Your task to perform on an android device: open app "Nova Launcher" (install if not already installed) Image 0: 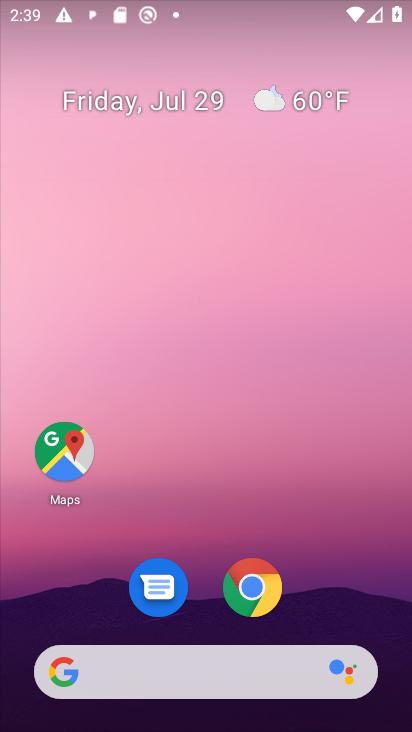
Step 0: drag from (167, 680) to (154, 27)
Your task to perform on an android device: open app "Nova Launcher" (install if not already installed) Image 1: 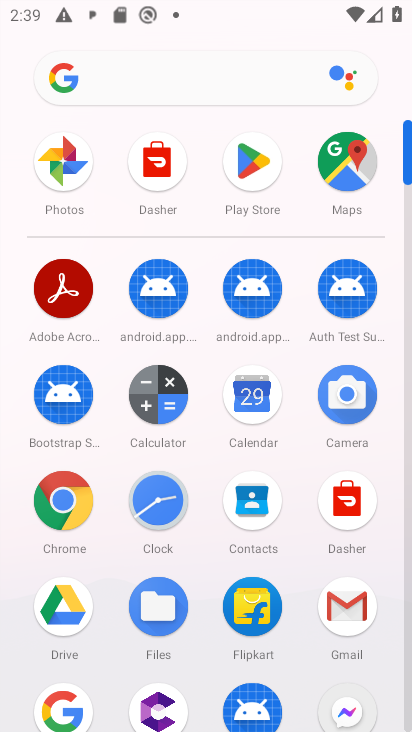
Step 1: click (255, 184)
Your task to perform on an android device: open app "Nova Launcher" (install if not already installed) Image 2: 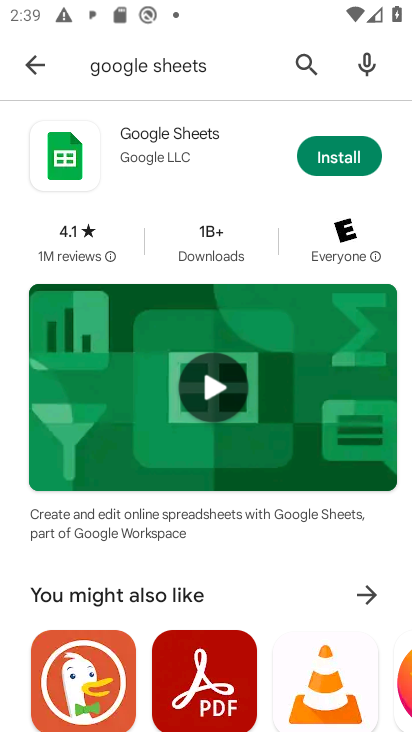
Step 2: click (309, 57)
Your task to perform on an android device: open app "Nova Launcher" (install if not already installed) Image 3: 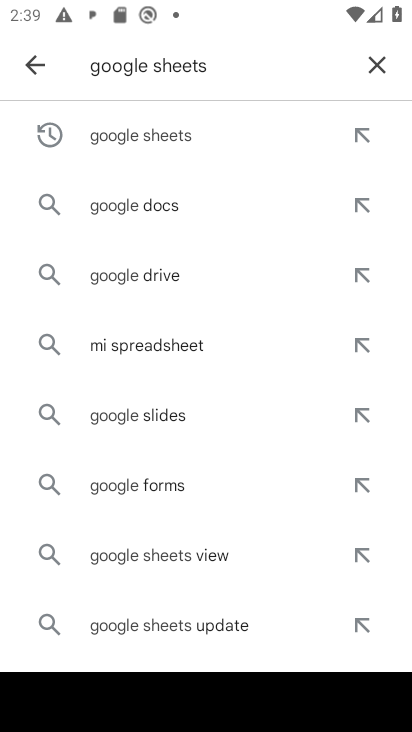
Step 3: click (375, 63)
Your task to perform on an android device: open app "Nova Launcher" (install if not already installed) Image 4: 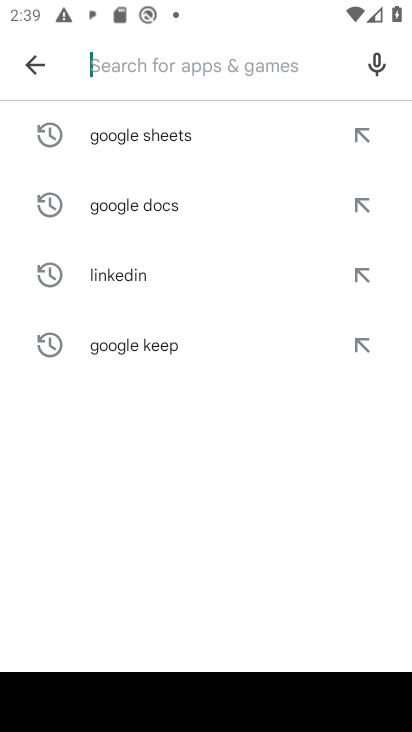
Step 4: type "Nova Launcher"
Your task to perform on an android device: open app "Nova Launcher" (install if not already installed) Image 5: 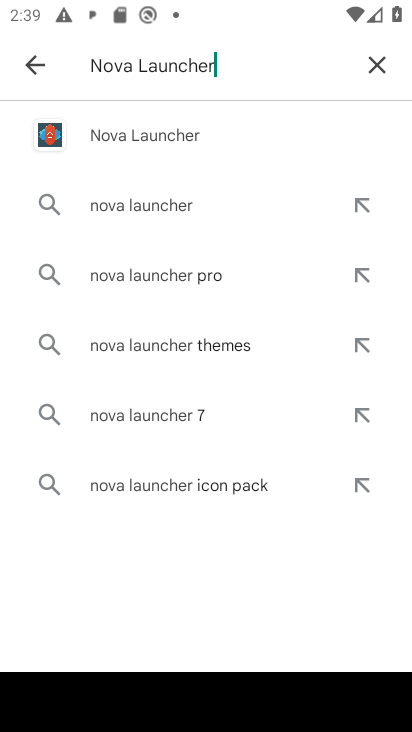
Step 5: click (175, 124)
Your task to perform on an android device: open app "Nova Launcher" (install if not already installed) Image 6: 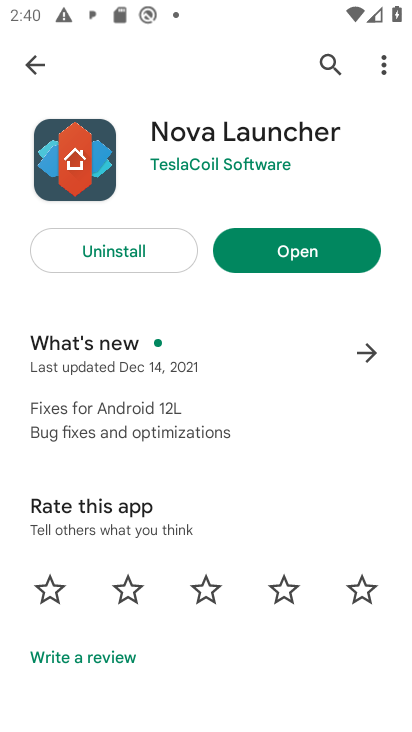
Step 6: click (323, 256)
Your task to perform on an android device: open app "Nova Launcher" (install if not already installed) Image 7: 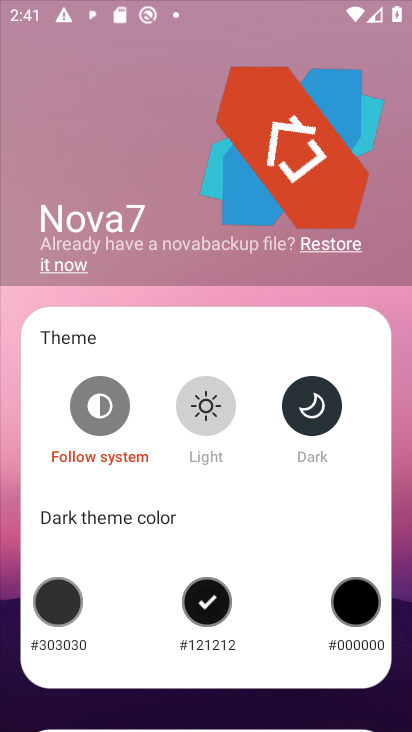
Step 7: task complete